Your task to perform on an android device: Go to Wikipedia Image 0: 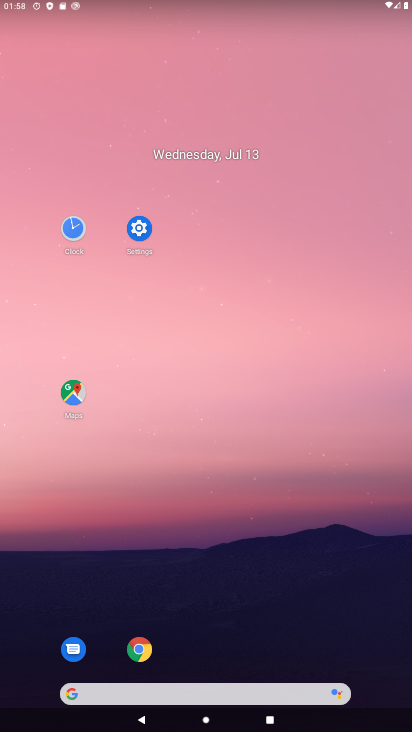
Step 0: click (147, 655)
Your task to perform on an android device: Go to Wikipedia Image 1: 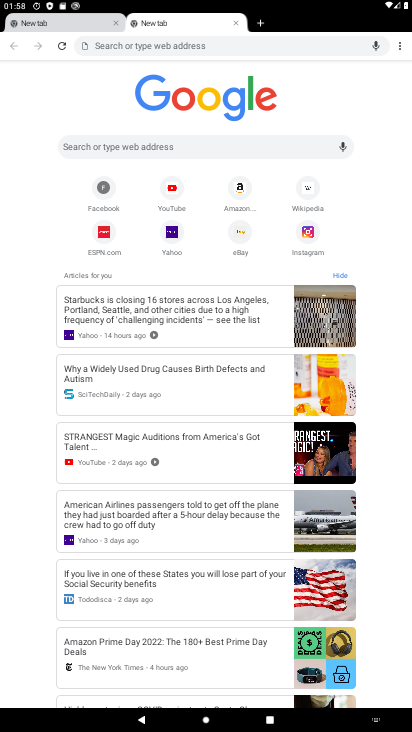
Step 1: click (263, 21)
Your task to perform on an android device: Go to Wikipedia Image 2: 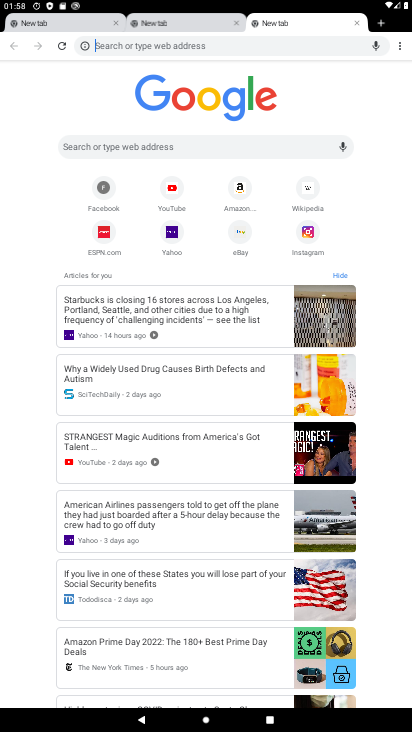
Step 2: click (312, 175)
Your task to perform on an android device: Go to Wikipedia Image 3: 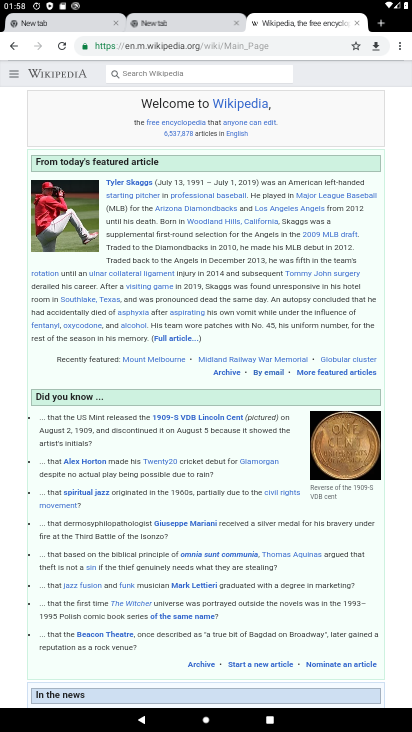
Step 3: task complete